Your task to perform on an android device: turn on notifications settings in the gmail app Image 0: 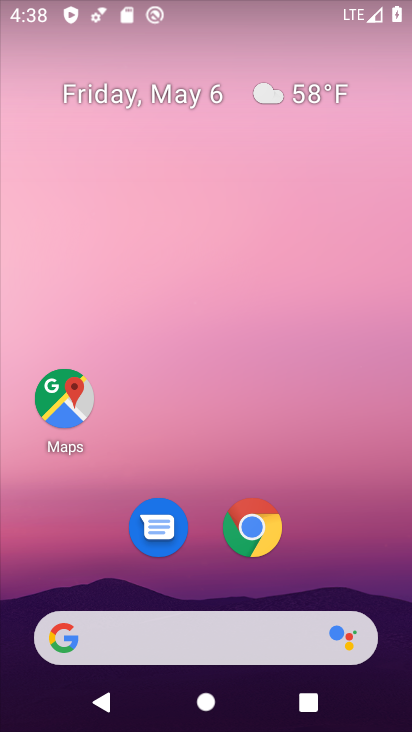
Step 0: drag from (225, 726) to (203, 135)
Your task to perform on an android device: turn on notifications settings in the gmail app Image 1: 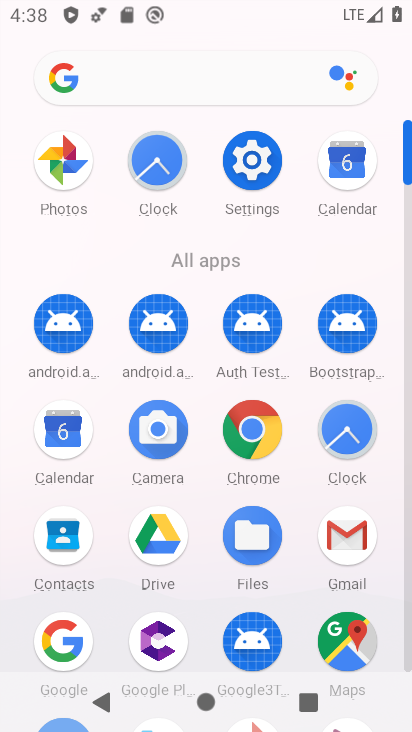
Step 1: click (353, 533)
Your task to perform on an android device: turn on notifications settings in the gmail app Image 2: 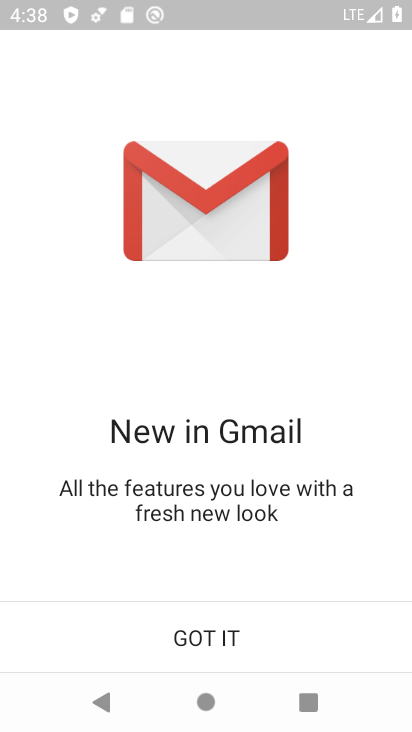
Step 2: click (206, 640)
Your task to perform on an android device: turn on notifications settings in the gmail app Image 3: 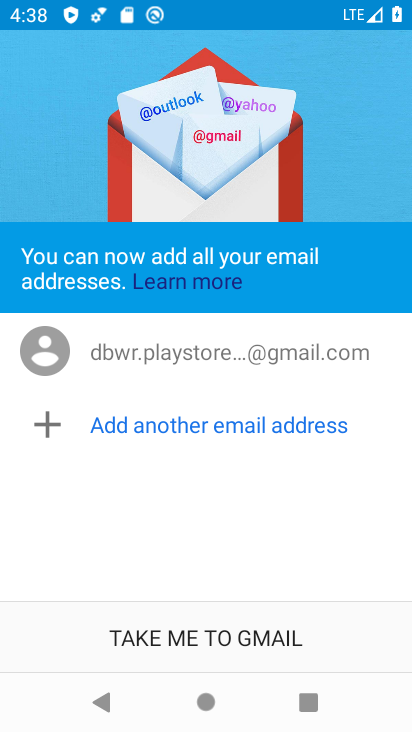
Step 3: click (206, 633)
Your task to perform on an android device: turn on notifications settings in the gmail app Image 4: 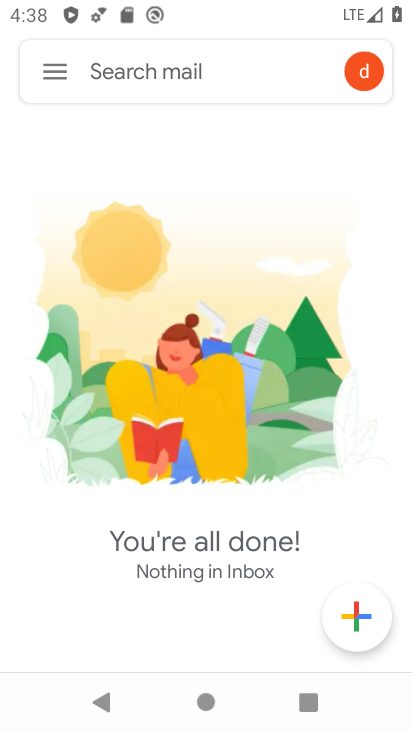
Step 4: click (58, 71)
Your task to perform on an android device: turn on notifications settings in the gmail app Image 5: 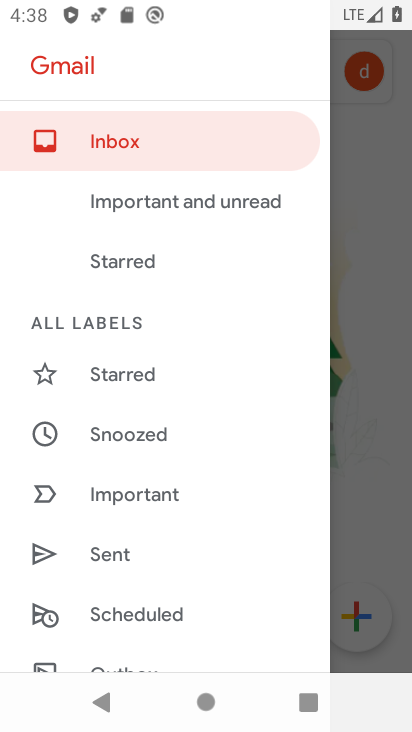
Step 5: drag from (192, 637) to (210, 247)
Your task to perform on an android device: turn on notifications settings in the gmail app Image 6: 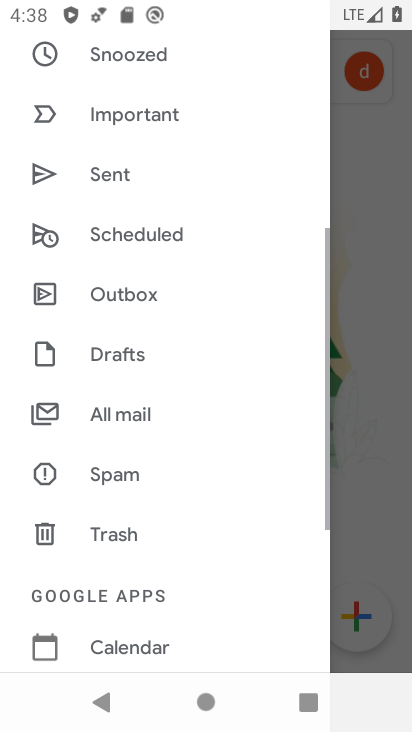
Step 6: drag from (160, 641) to (195, 339)
Your task to perform on an android device: turn on notifications settings in the gmail app Image 7: 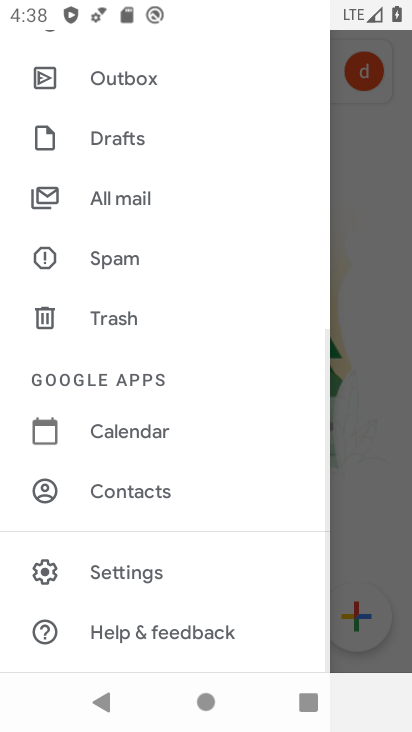
Step 7: click (125, 571)
Your task to perform on an android device: turn on notifications settings in the gmail app Image 8: 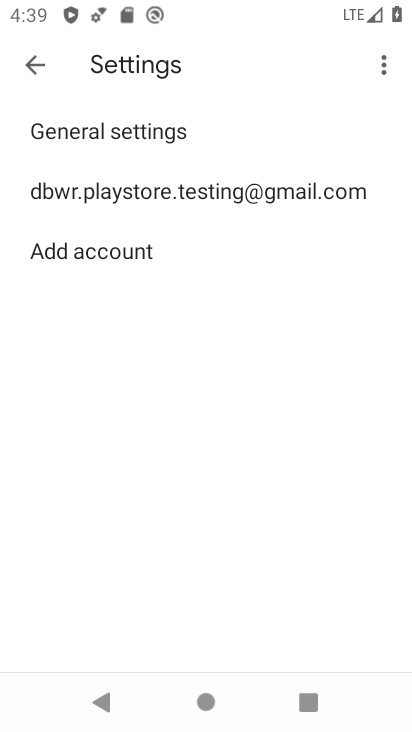
Step 8: click (140, 191)
Your task to perform on an android device: turn on notifications settings in the gmail app Image 9: 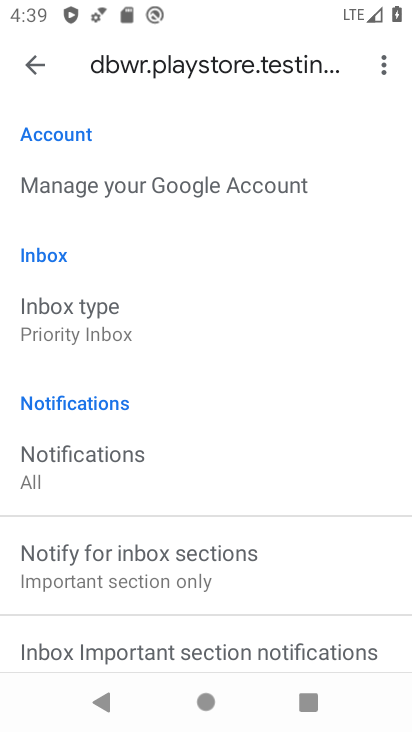
Step 9: task complete